Your task to perform on an android device: Search for sushi restaurants on Maps Image 0: 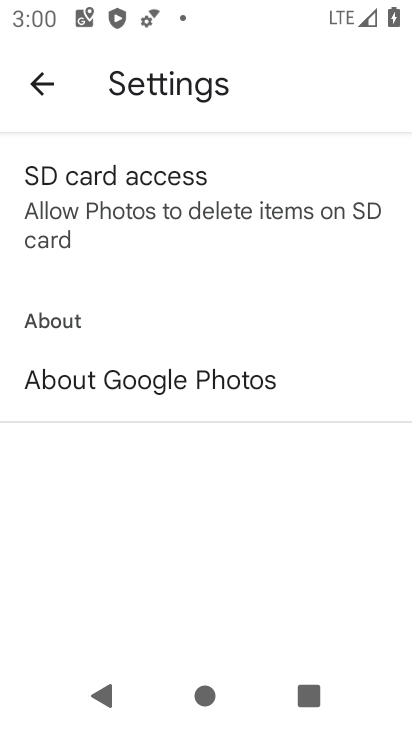
Step 0: press home button
Your task to perform on an android device: Search for sushi restaurants on Maps Image 1: 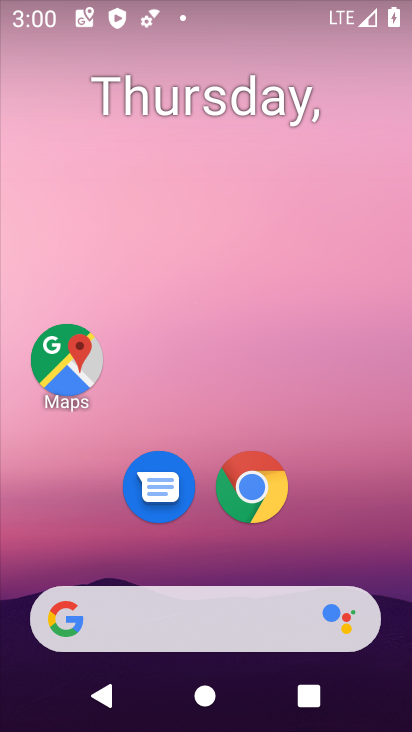
Step 1: click (62, 349)
Your task to perform on an android device: Search for sushi restaurants on Maps Image 2: 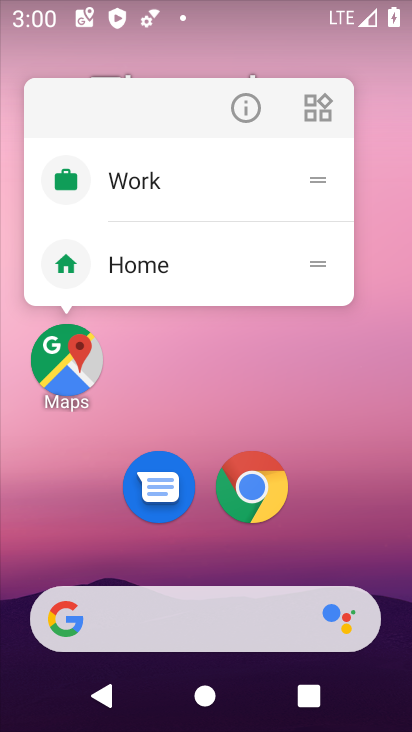
Step 2: click (62, 349)
Your task to perform on an android device: Search for sushi restaurants on Maps Image 3: 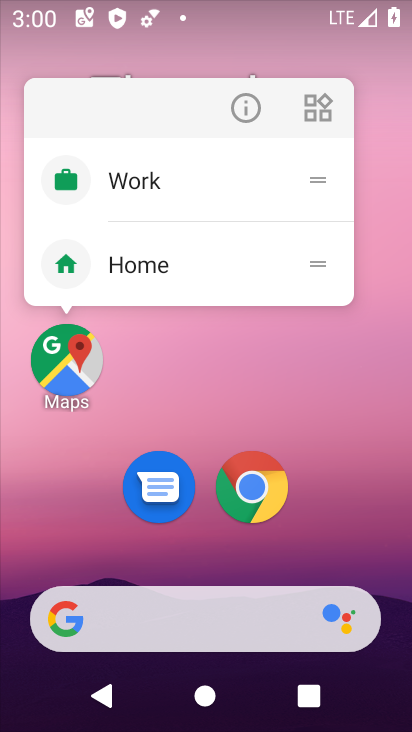
Step 3: click (62, 348)
Your task to perform on an android device: Search for sushi restaurants on Maps Image 4: 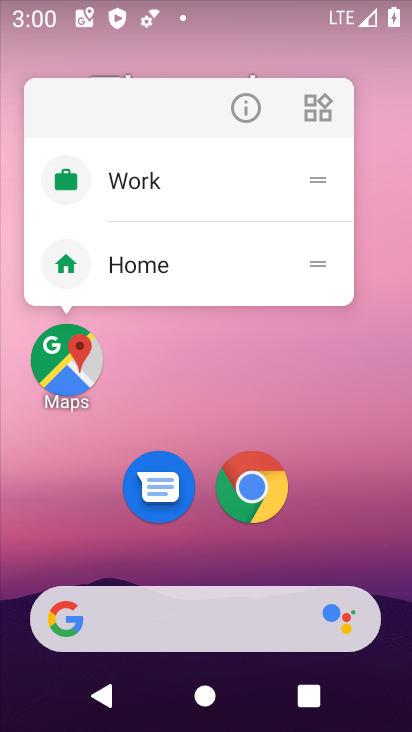
Step 4: click (62, 347)
Your task to perform on an android device: Search for sushi restaurants on Maps Image 5: 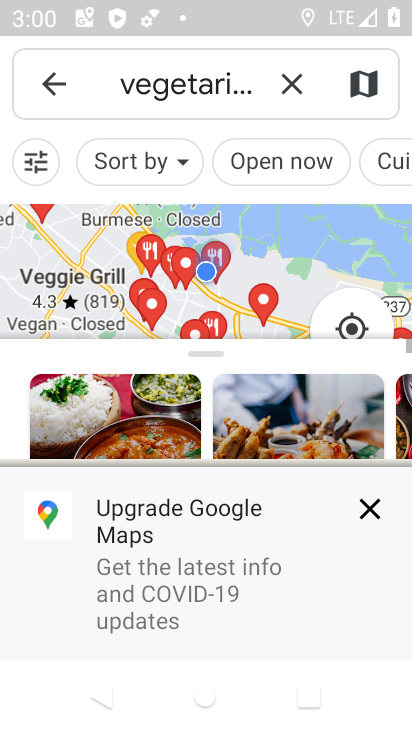
Step 5: click (291, 83)
Your task to perform on an android device: Search for sushi restaurants on Maps Image 6: 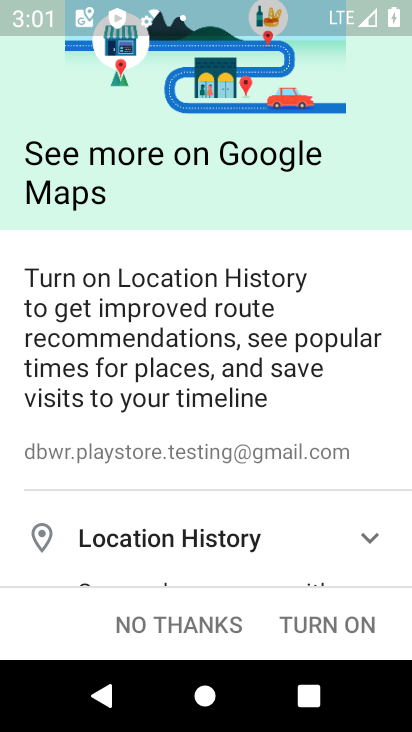
Step 6: click (216, 612)
Your task to perform on an android device: Search for sushi restaurants on Maps Image 7: 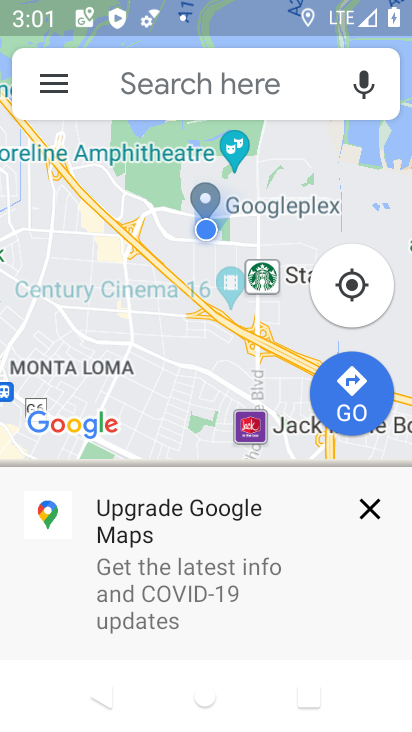
Step 7: click (166, 79)
Your task to perform on an android device: Search for sushi restaurants on Maps Image 8: 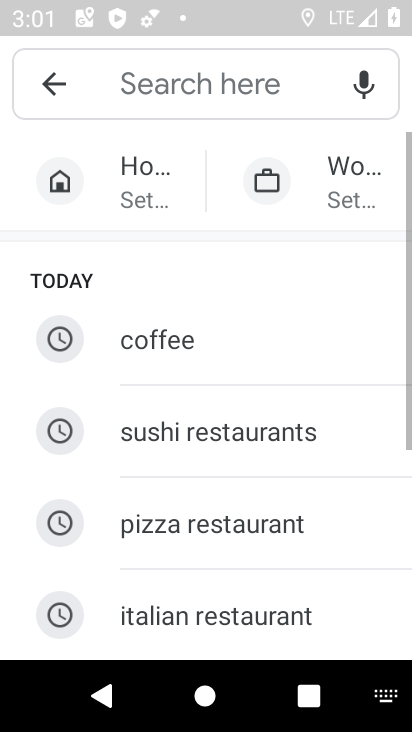
Step 8: click (203, 434)
Your task to perform on an android device: Search for sushi restaurants on Maps Image 9: 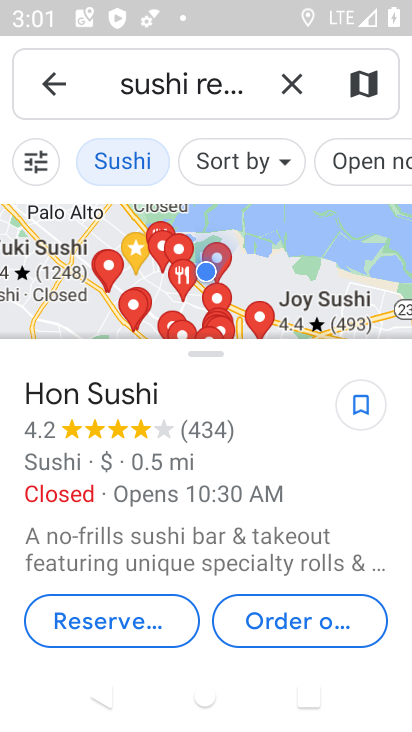
Step 9: task complete